Your task to perform on an android device: Do I have any events today? Image 0: 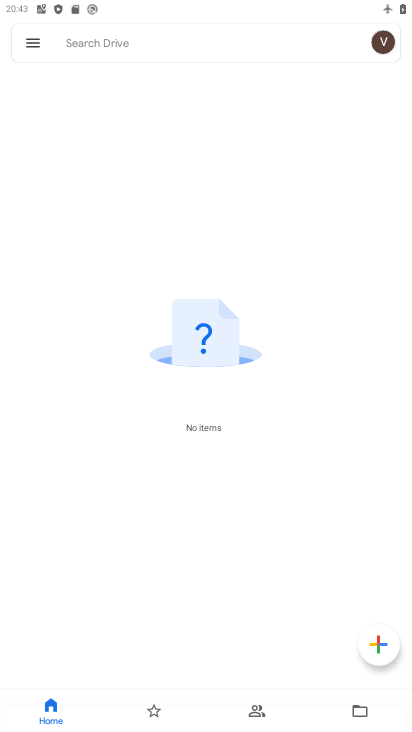
Step 0: press home button
Your task to perform on an android device: Do I have any events today? Image 1: 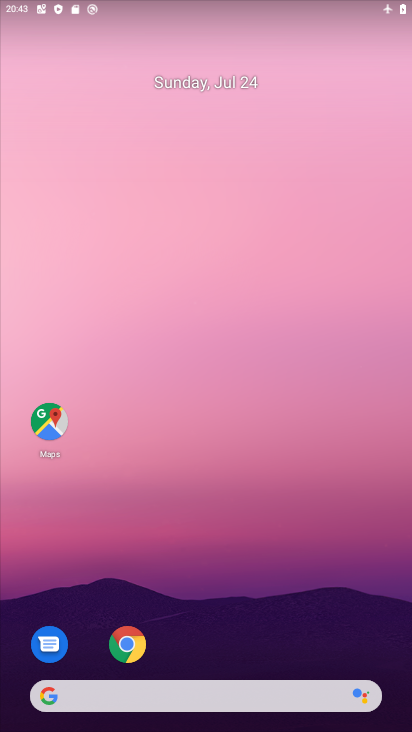
Step 1: drag from (343, 658) to (301, 285)
Your task to perform on an android device: Do I have any events today? Image 2: 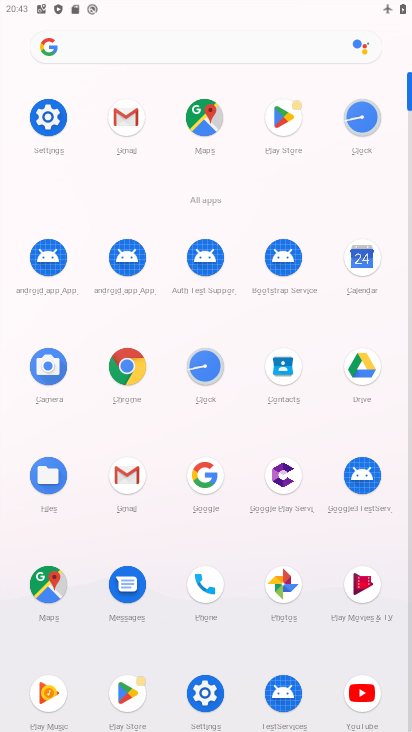
Step 2: click (363, 260)
Your task to perform on an android device: Do I have any events today? Image 3: 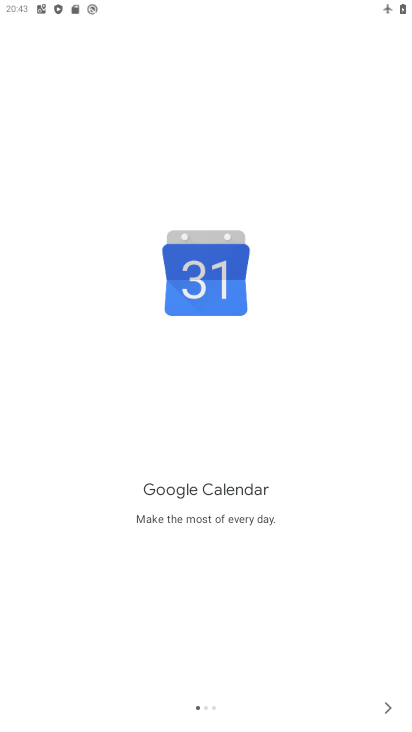
Step 3: click (385, 705)
Your task to perform on an android device: Do I have any events today? Image 4: 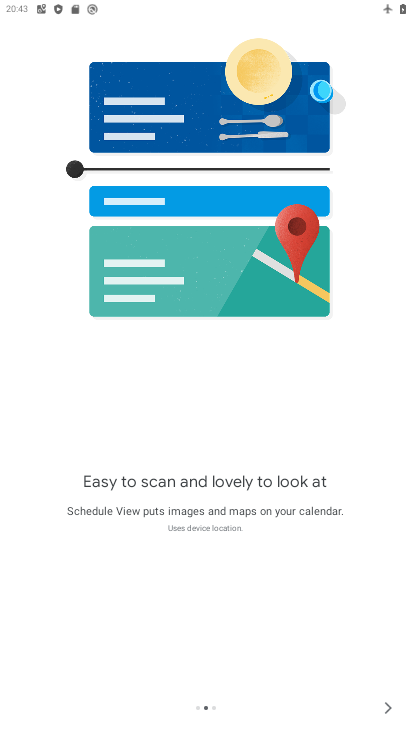
Step 4: click (385, 705)
Your task to perform on an android device: Do I have any events today? Image 5: 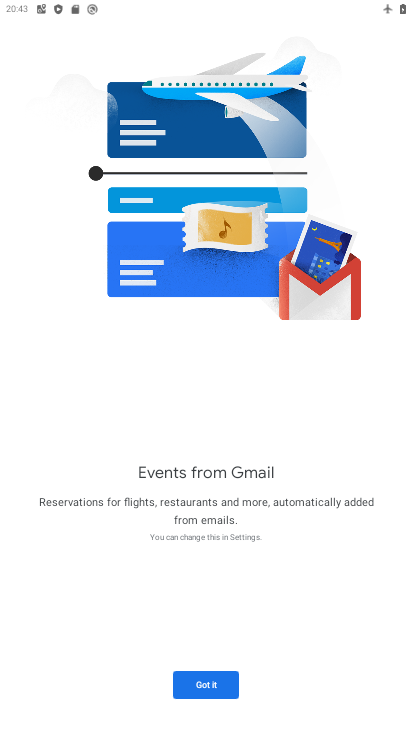
Step 5: click (210, 683)
Your task to perform on an android device: Do I have any events today? Image 6: 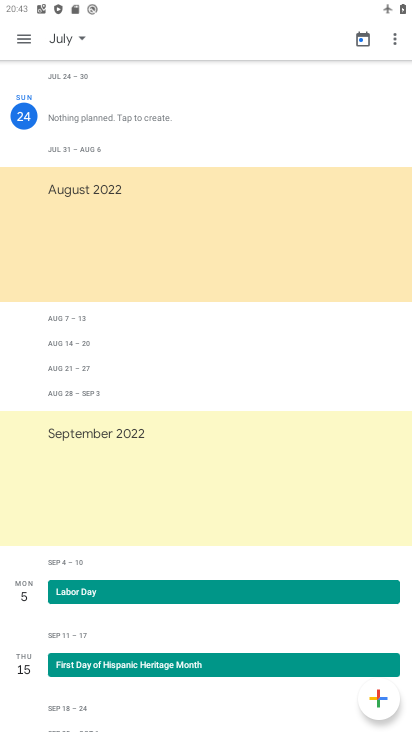
Step 6: click (21, 41)
Your task to perform on an android device: Do I have any events today? Image 7: 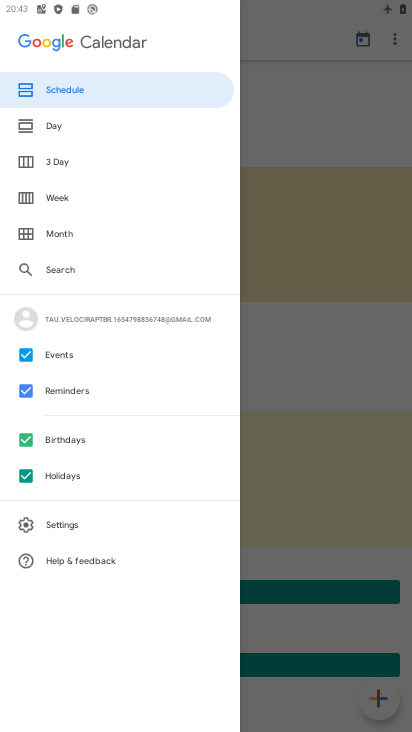
Step 7: click (57, 122)
Your task to perform on an android device: Do I have any events today? Image 8: 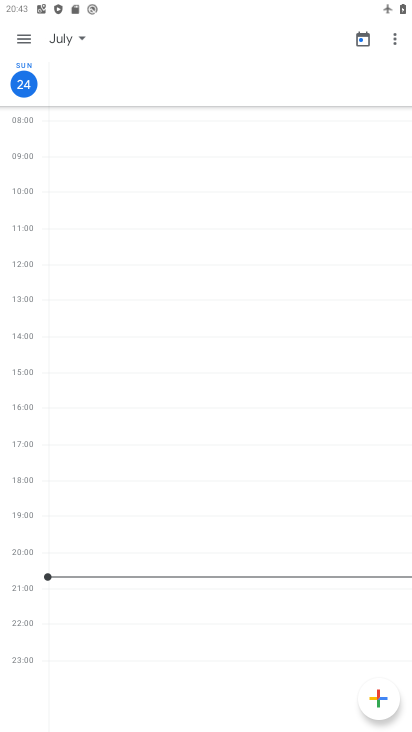
Step 8: drag from (151, 219) to (168, 434)
Your task to perform on an android device: Do I have any events today? Image 9: 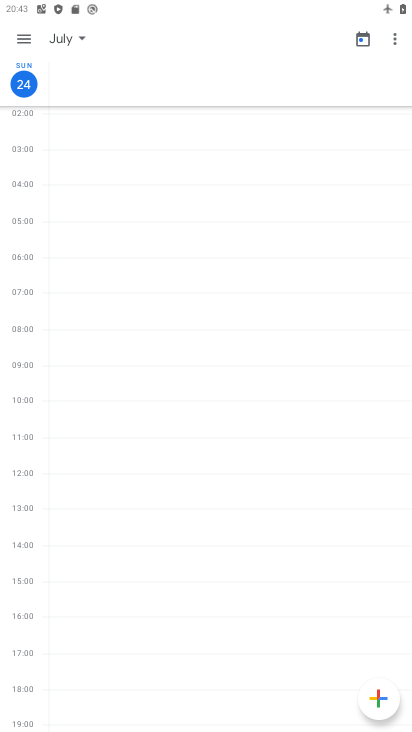
Step 9: click (163, 192)
Your task to perform on an android device: Do I have any events today? Image 10: 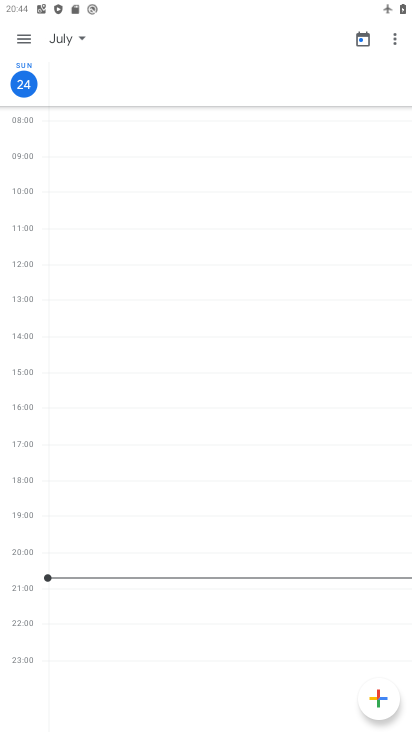
Step 10: task complete